Your task to perform on an android device: What's the weather? Image 0: 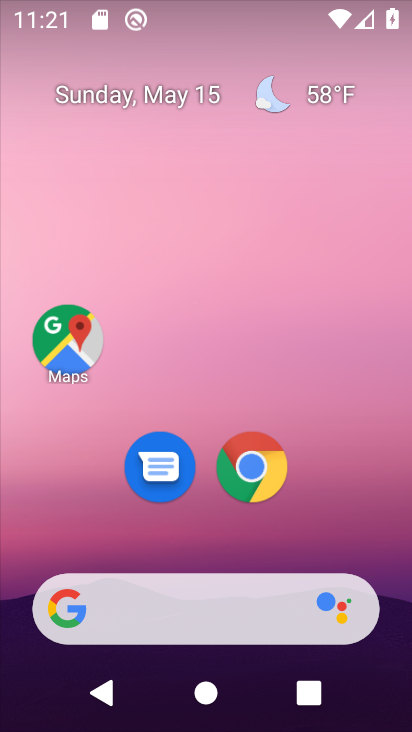
Step 0: click (321, 89)
Your task to perform on an android device: What's the weather? Image 1: 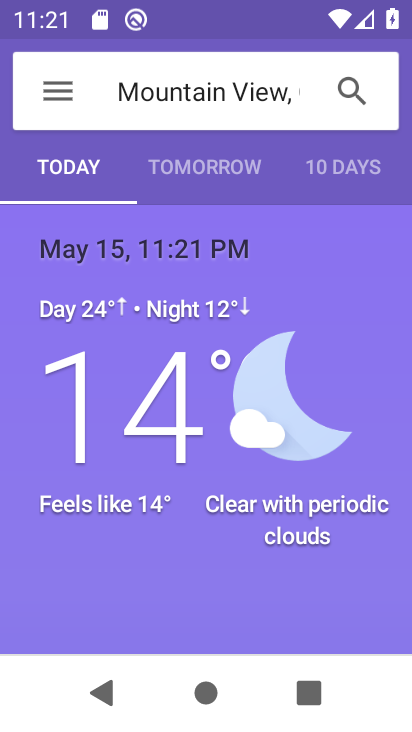
Step 1: task complete